Your task to perform on an android device: open app "Truecaller" Image 0: 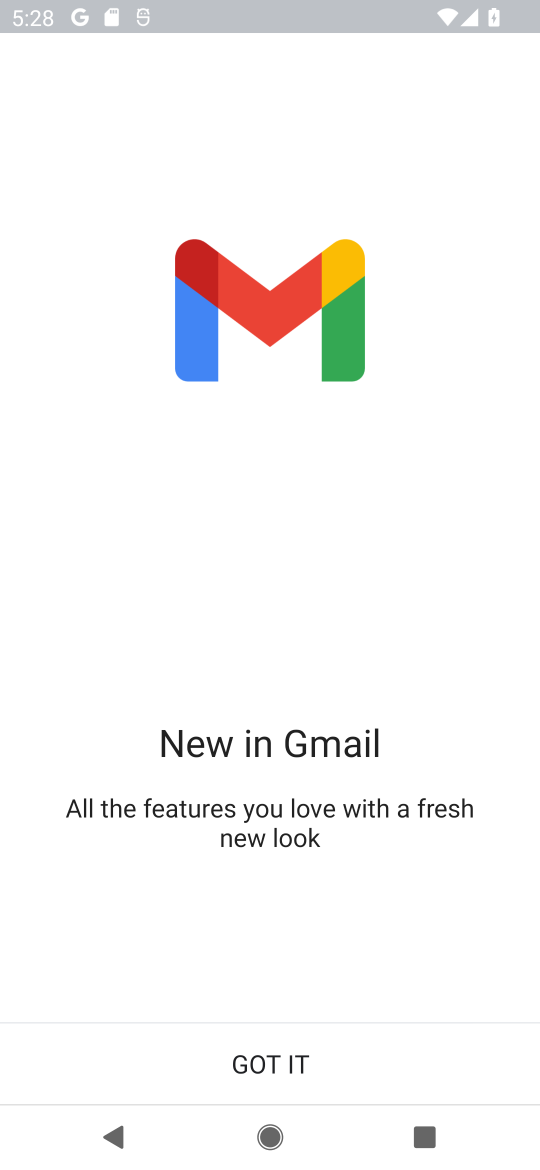
Step 0: press home button
Your task to perform on an android device: open app "Truecaller" Image 1: 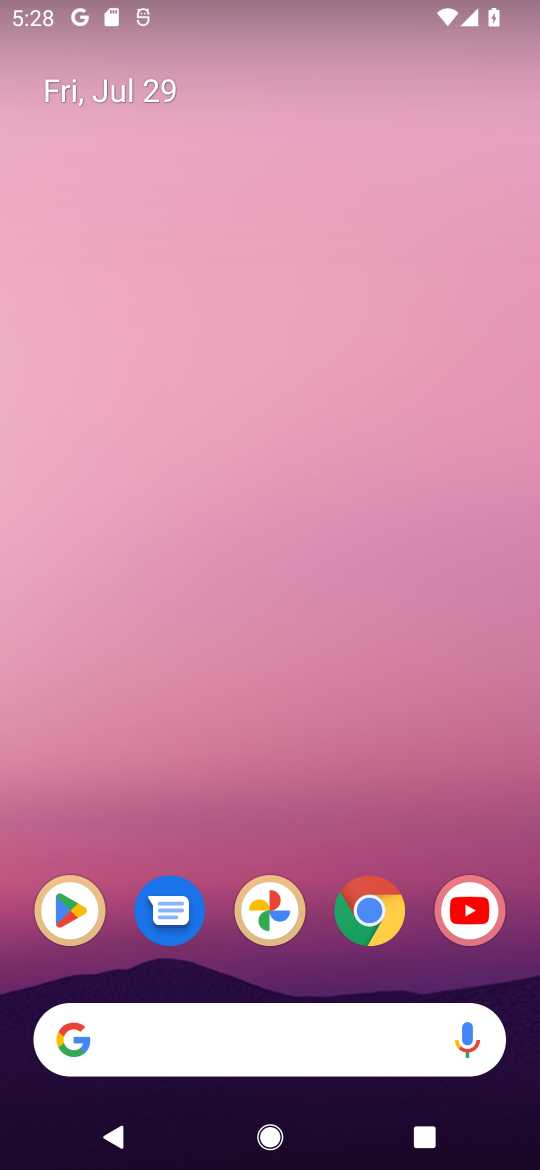
Step 1: click (81, 899)
Your task to perform on an android device: open app "Truecaller" Image 2: 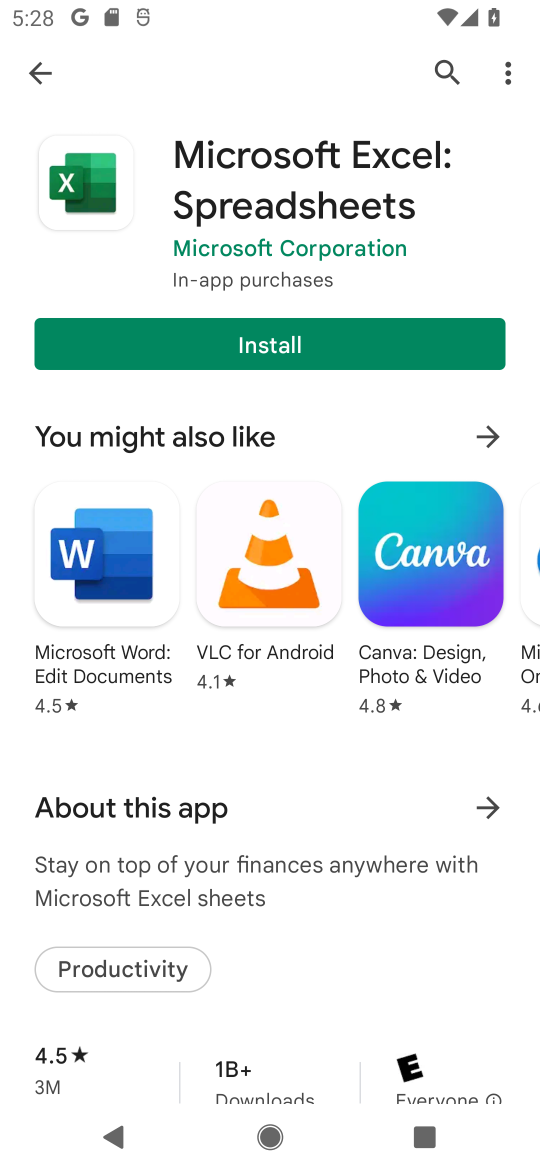
Step 2: click (446, 66)
Your task to perform on an android device: open app "Truecaller" Image 3: 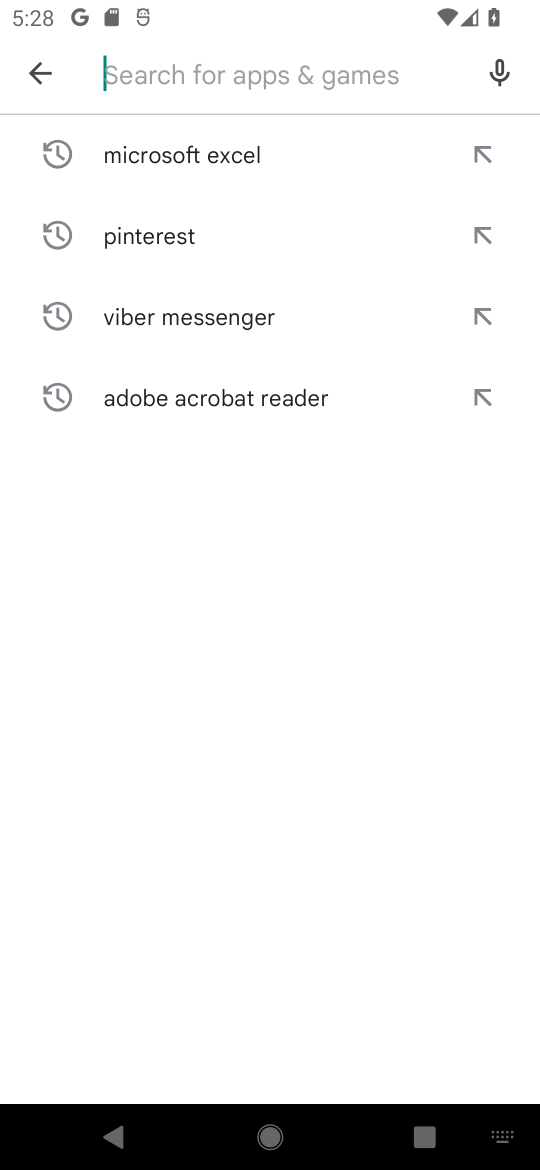
Step 3: type "truecaller"
Your task to perform on an android device: open app "Truecaller" Image 4: 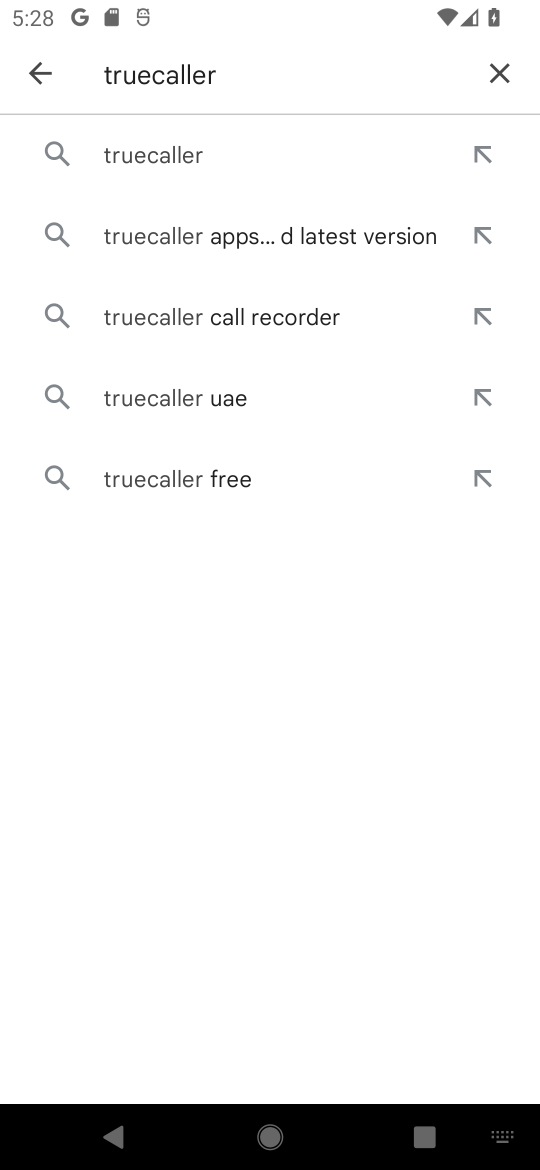
Step 4: click (259, 151)
Your task to perform on an android device: open app "Truecaller" Image 5: 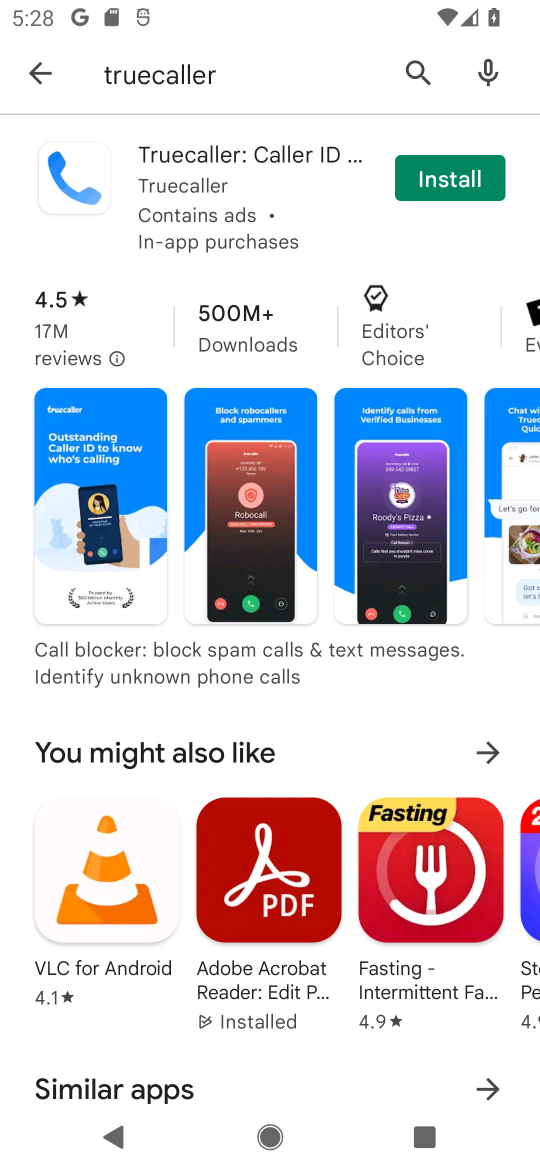
Step 5: click (242, 151)
Your task to perform on an android device: open app "Truecaller" Image 6: 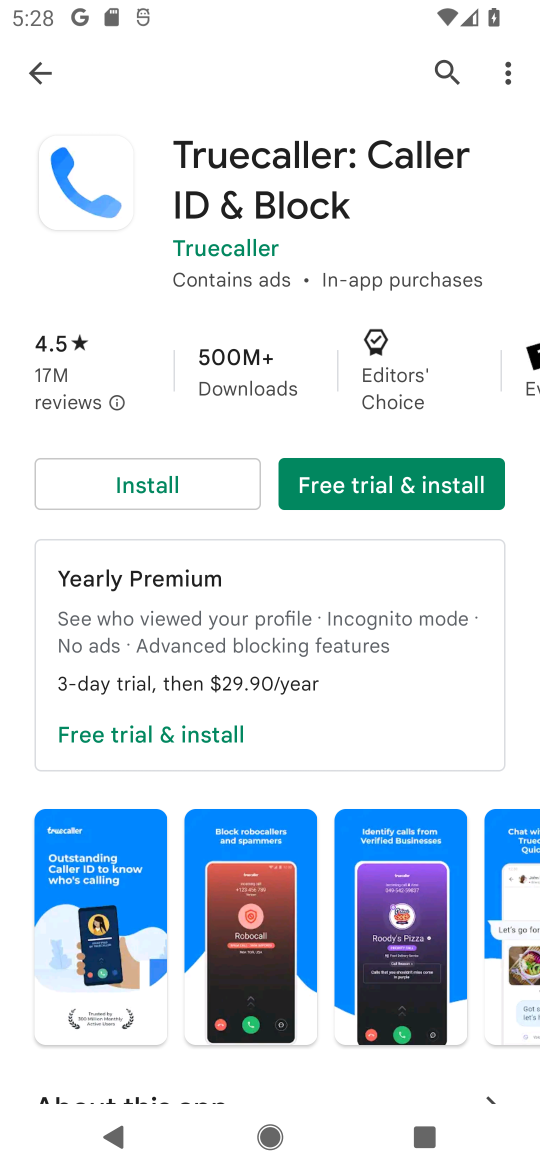
Step 6: task complete